Your task to perform on an android device: Go to Maps Image 0: 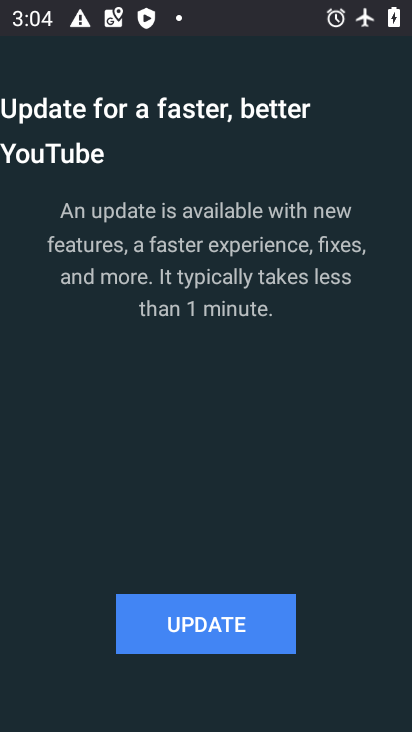
Step 0: press home button
Your task to perform on an android device: Go to Maps Image 1: 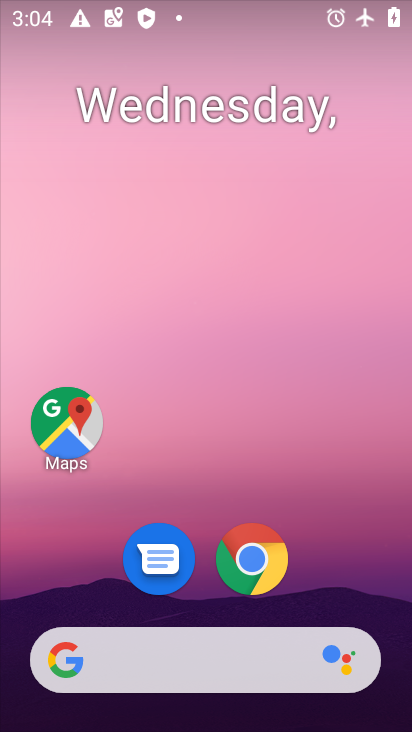
Step 1: drag from (209, 620) to (215, 88)
Your task to perform on an android device: Go to Maps Image 2: 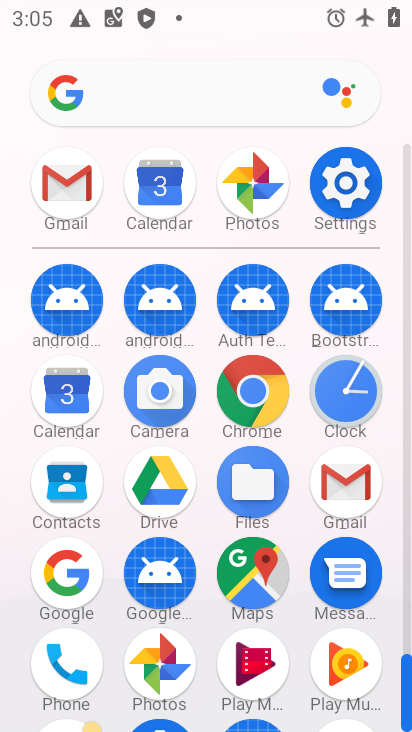
Step 2: click (242, 574)
Your task to perform on an android device: Go to Maps Image 3: 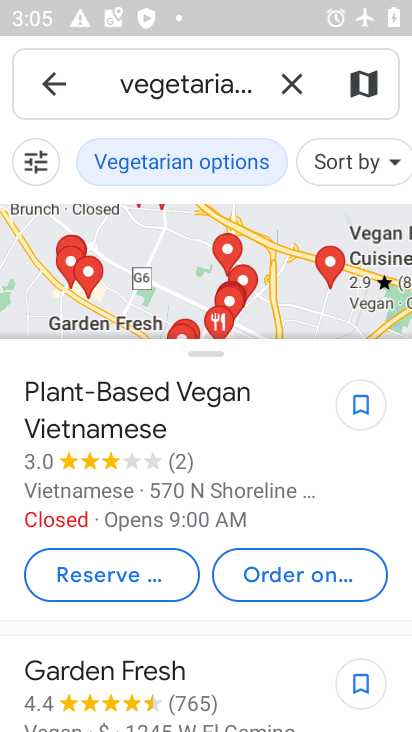
Step 3: task complete